Your task to perform on an android device: empty trash in the gmail app Image 0: 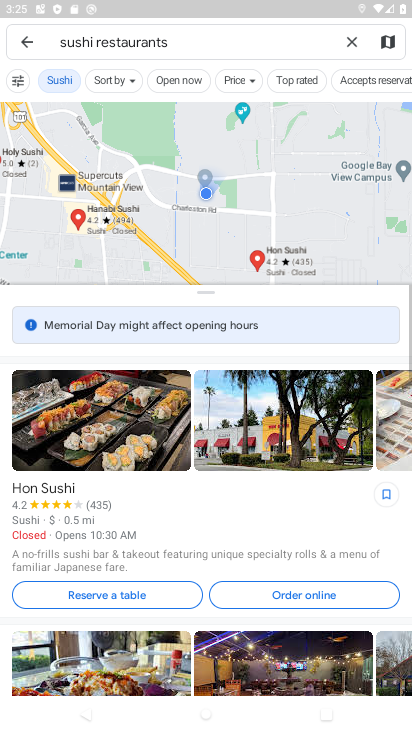
Step 0: press home button
Your task to perform on an android device: empty trash in the gmail app Image 1: 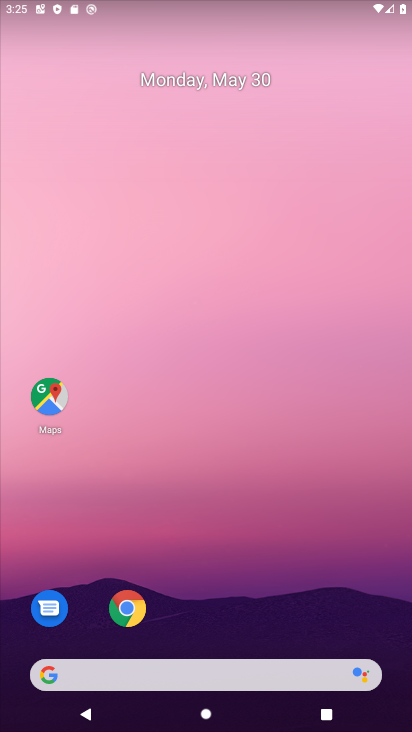
Step 1: drag from (243, 565) to (244, 256)
Your task to perform on an android device: empty trash in the gmail app Image 2: 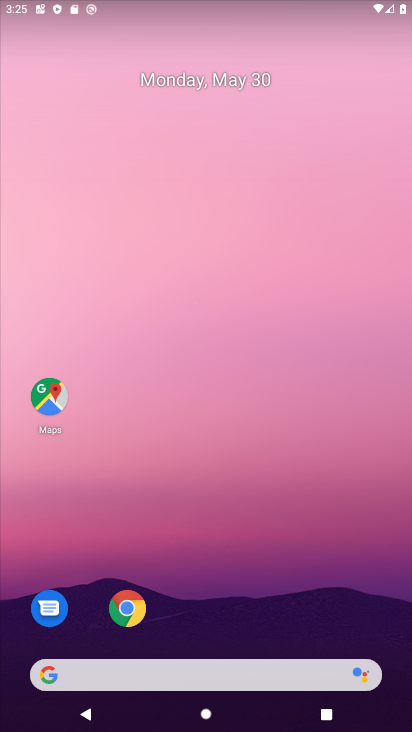
Step 2: drag from (201, 629) to (202, 273)
Your task to perform on an android device: empty trash in the gmail app Image 3: 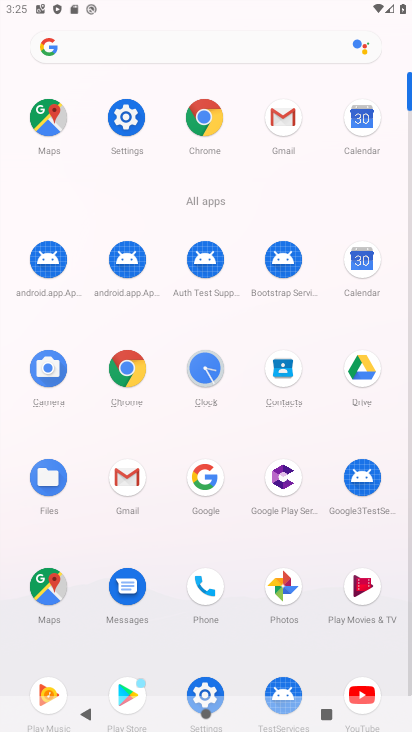
Step 3: click (118, 467)
Your task to perform on an android device: empty trash in the gmail app Image 4: 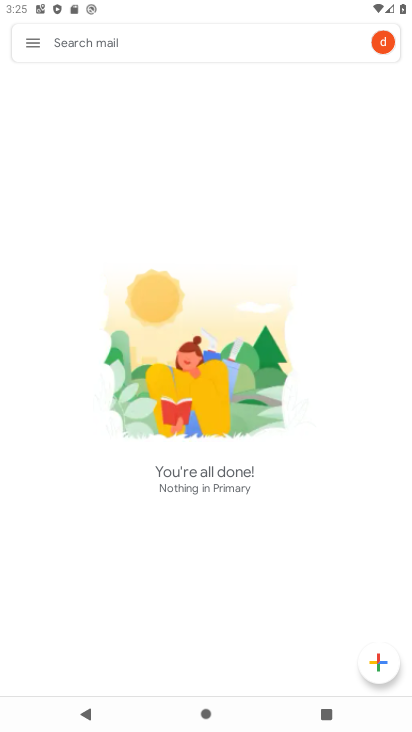
Step 4: click (25, 38)
Your task to perform on an android device: empty trash in the gmail app Image 5: 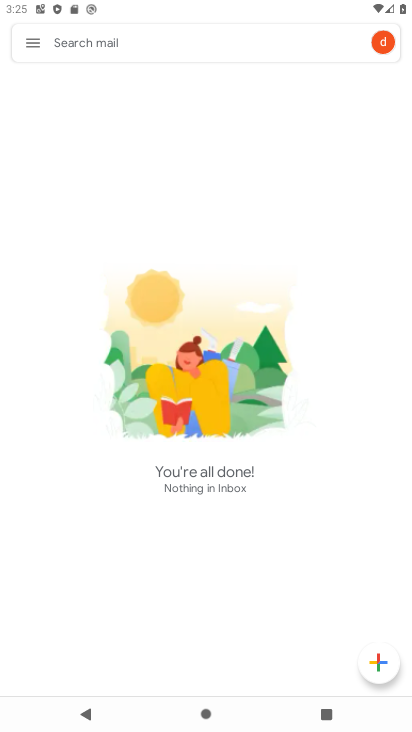
Step 5: click (27, 43)
Your task to perform on an android device: empty trash in the gmail app Image 6: 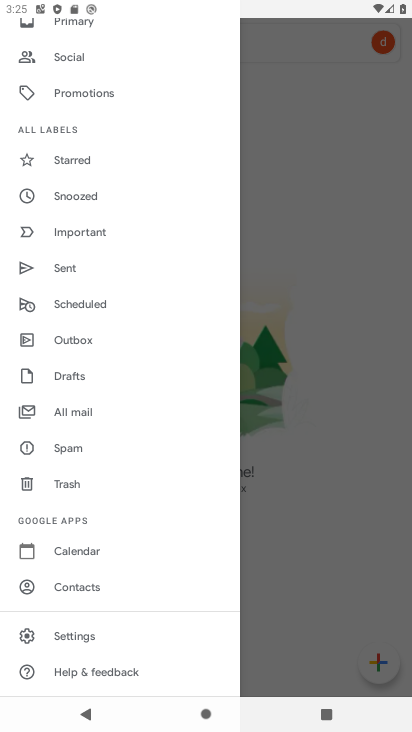
Step 6: click (98, 472)
Your task to perform on an android device: empty trash in the gmail app Image 7: 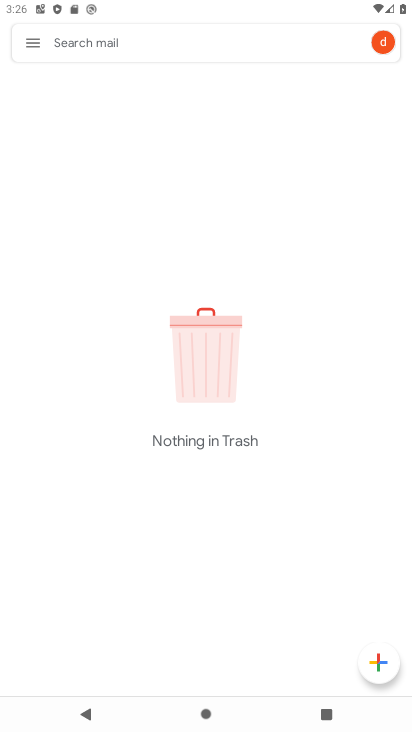
Step 7: task complete